Your task to perform on an android device: find photos in the google photos app Image 0: 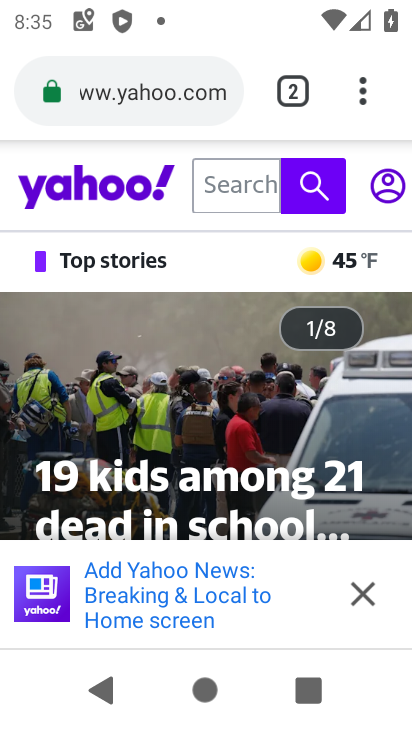
Step 0: press home button
Your task to perform on an android device: find photos in the google photos app Image 1: 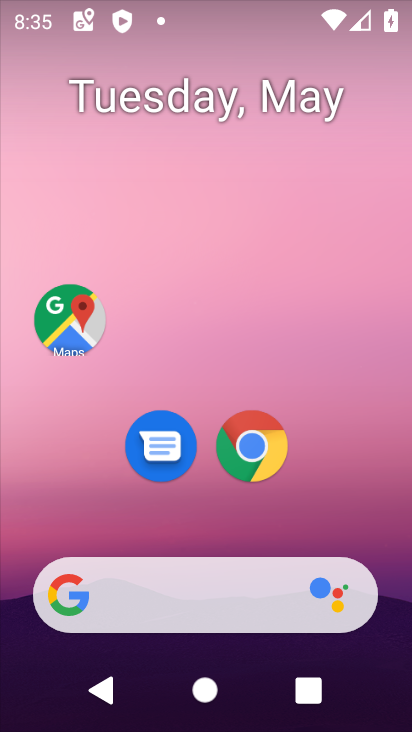
Step 1: drag from (340, 535) to (321, 3)
Your task to perform on an android device: find photos in the google photos app Image 2: 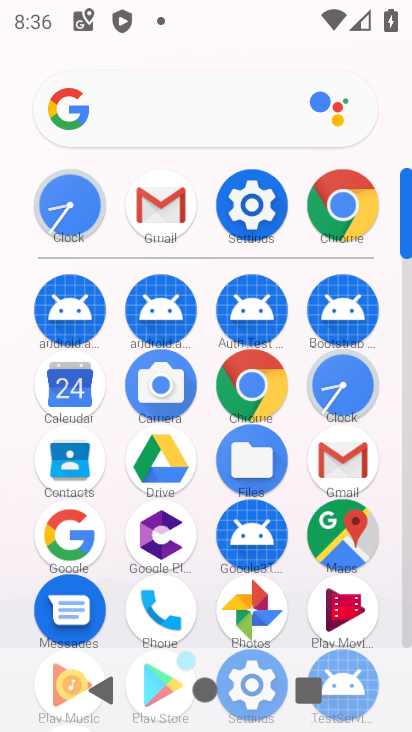
Step 2: click (250, 612)
Your task to perform on an android device: find photos in the google photos app Image 3: 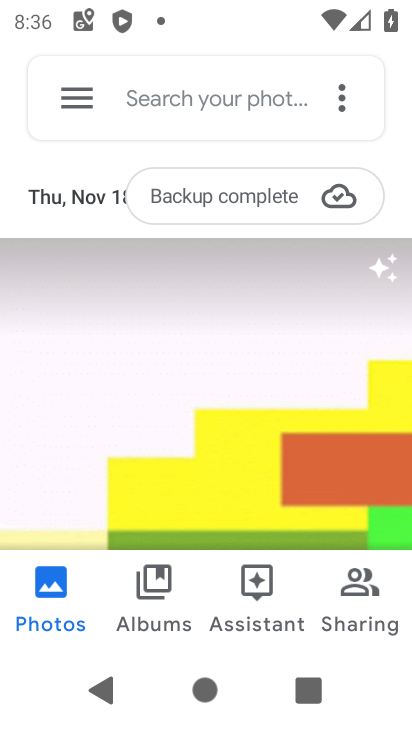
Step 3: click (45, 604)
Your task to perform on an android device: find photos in the google photos app Image 4: 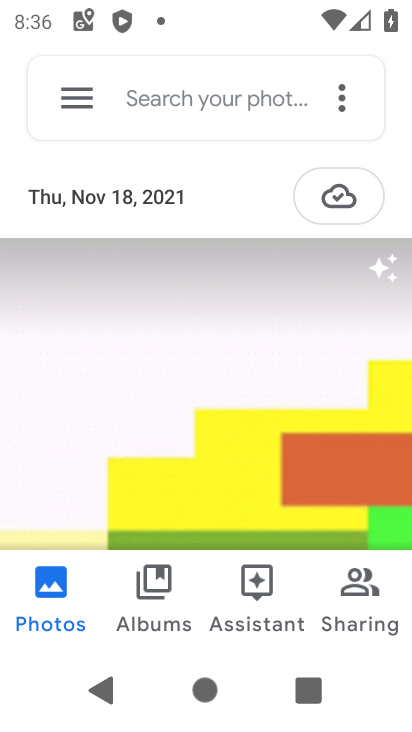
Step 4: task complete